Your task to perform on an android device: Do I have any events today? Image 0: 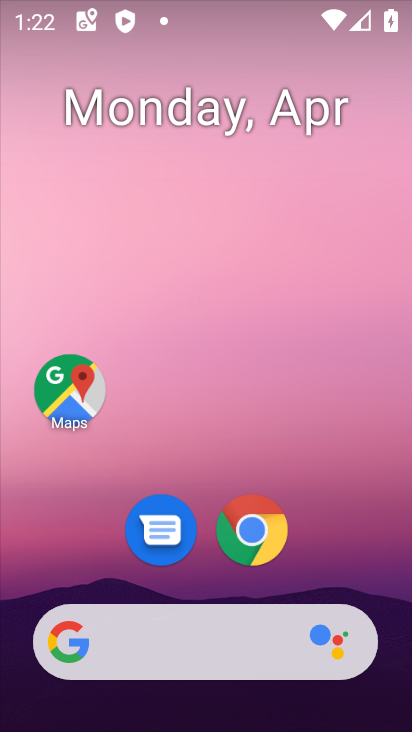
Step 0: drag from (334, 543) to (274, 35)
Your task to perform on an android device: Do I have any events today? Image 1: 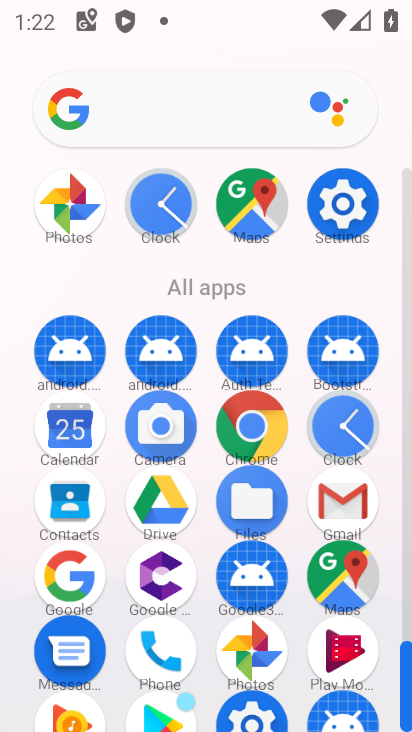
Step 1: click (71, 436)
Your task to perform on an android device: Do I have any events today? Image 2: 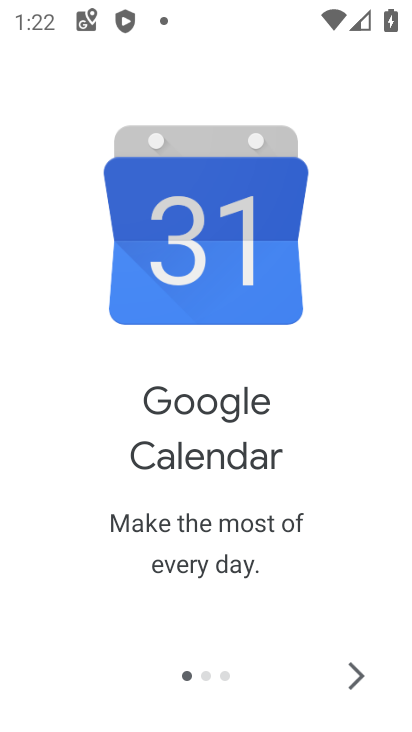
Step 2: click (356, 676)
Your task to perform on an android device: Do I have any events today? Image 3: 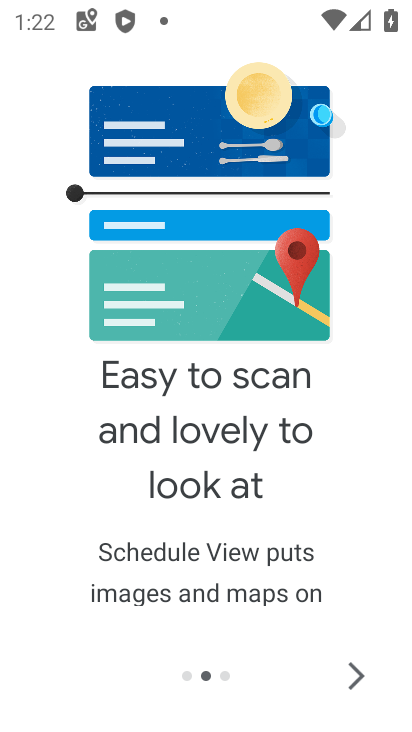
Step 3: click (356, 676)
Your task to perform on an android device: Do I have any events today? Image 4: 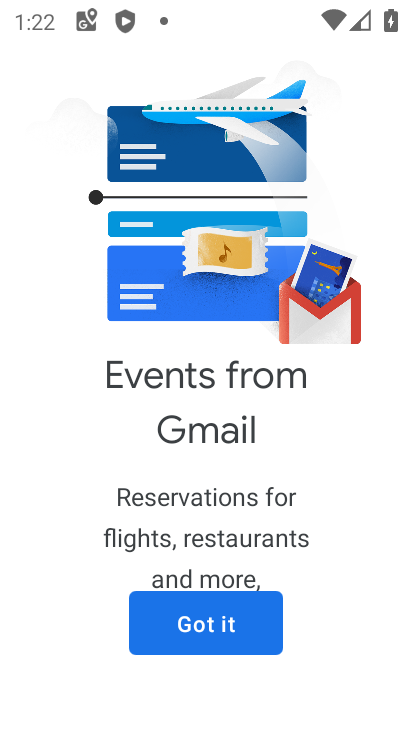
Step 4: click (356, 676)
Your task to perform on an android device: Do I have any events today? Image 5: 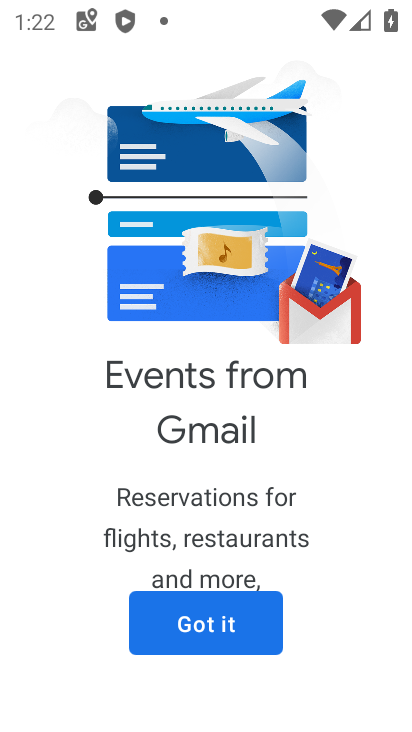
Step 5: click (195, 616)
Your task to perform on an android device: Do I have any events today? Image 6: 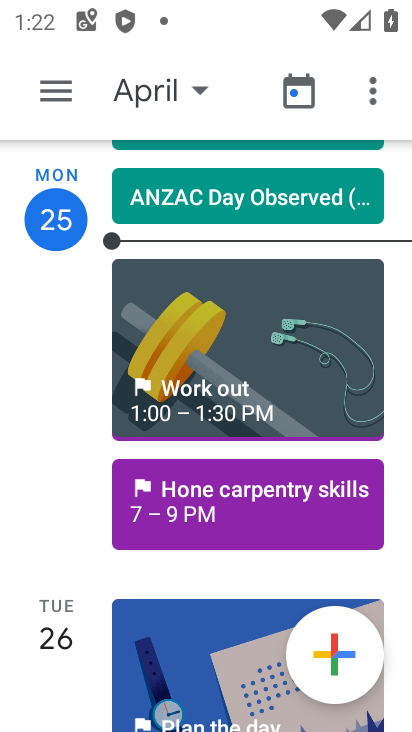
Step 6: drag from (232, 419) to (178, 196)
Your task to perform on an android device: Do I have any events today? Image 7: 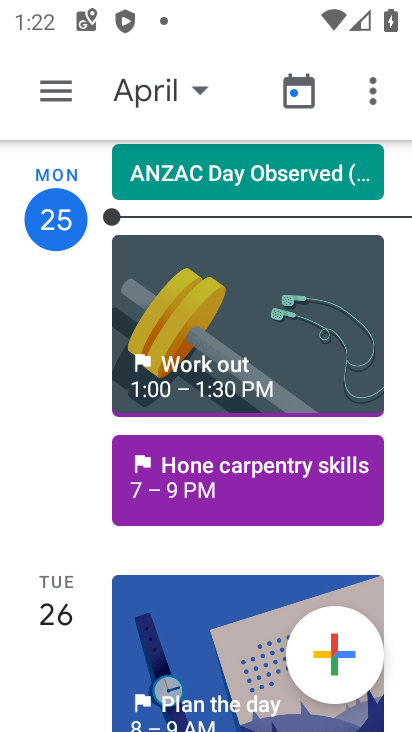
Step 7: click (197, 85)
Your task to perform on an android device: Do I have any events today? Image 8: 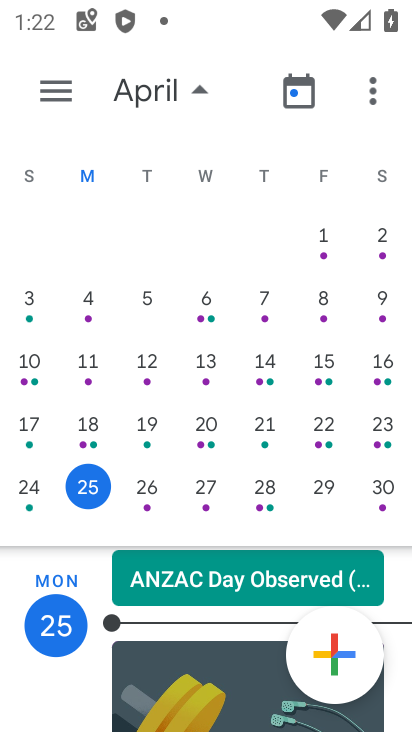
Step 8: click (25, 488)
Your task to perform on an android device: Do I have any events today? Image 9: 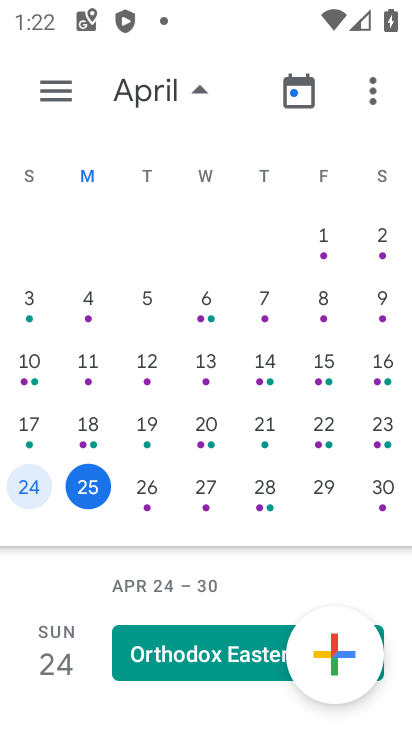
Step 9: task complete